Your task to perform on an android device: Search for the new Nintendo switch on Walmart. Image 0: 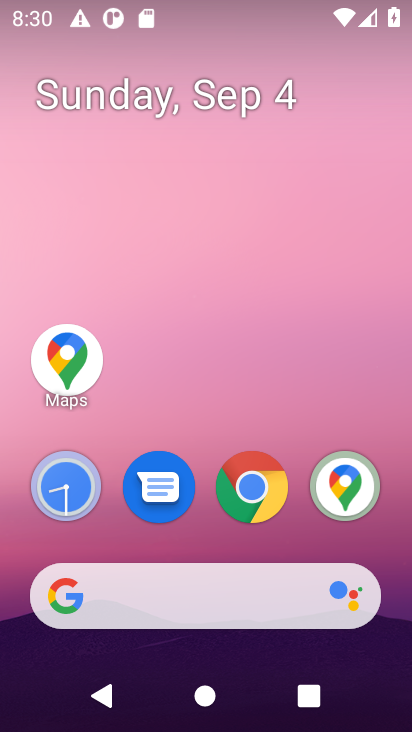
Step 0: click (366, 489)
Your task to perform on an android device: Search for the new Nintendo switch on Walmart. Image 1: 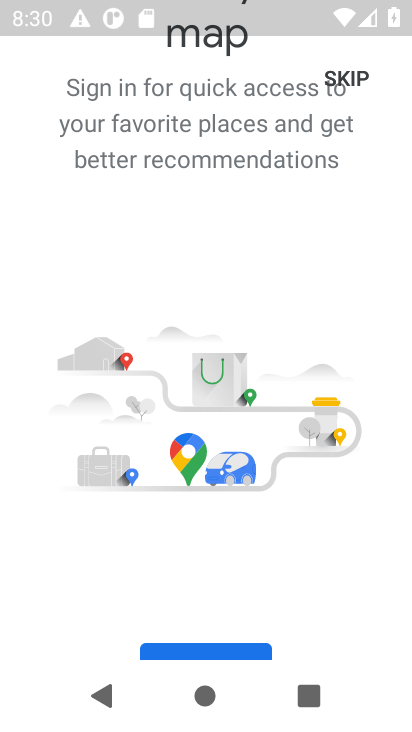
Step 1: click (209, 645)
Your task to perform on an android device: Search for the new Nintendo switch on Walmart. Image 2: 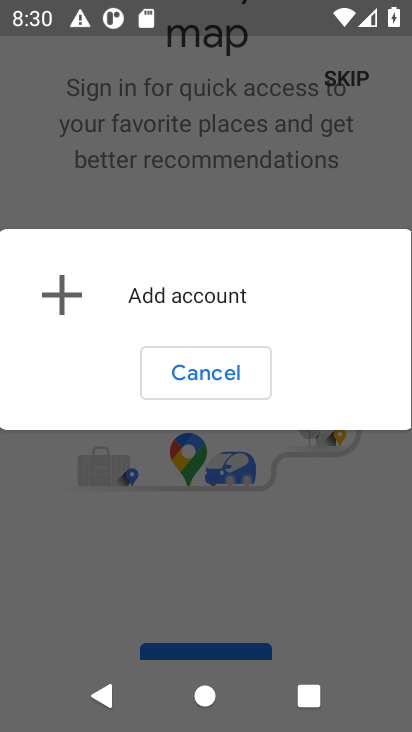
Step 2: click (331, 63)
Your task to perform on an android device: Search for the new Nintendo switch on Walmart. Image 3: 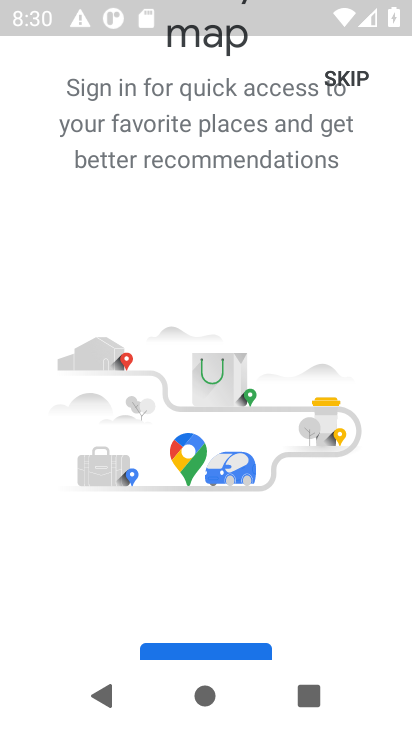
Step 3: click (331, 63)
Your task to perform on an android device: Search for the new Nintendo switch on Walmart. Image 4: 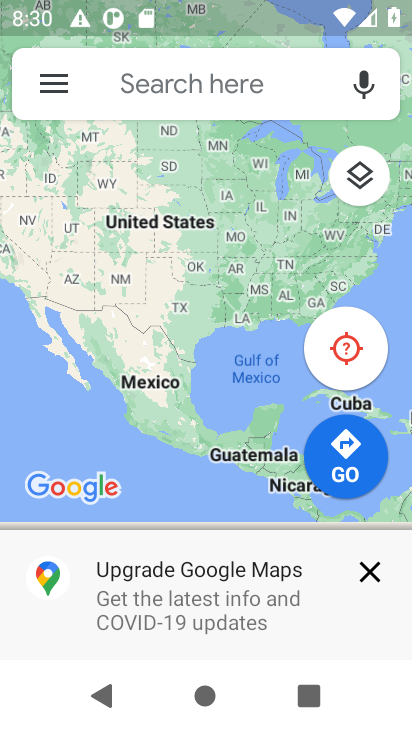
Step 4: click (362, 567)
Your task to perform on an android device: Search for the new Nintendo switch on Walmart. Image 5: 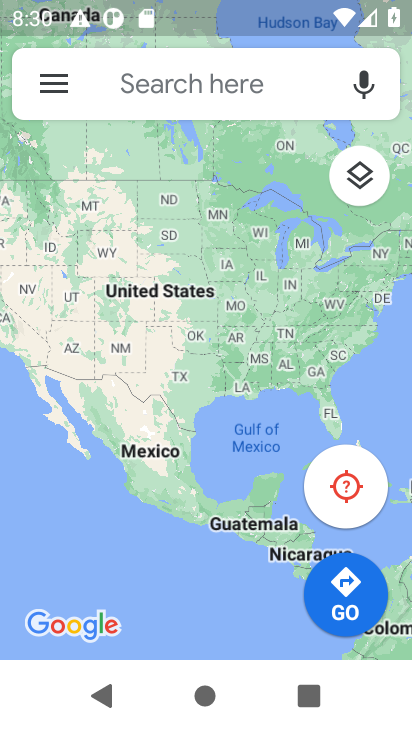
Step 5: task complete